Your task to perform on an android device: Go to display settings Image 0: 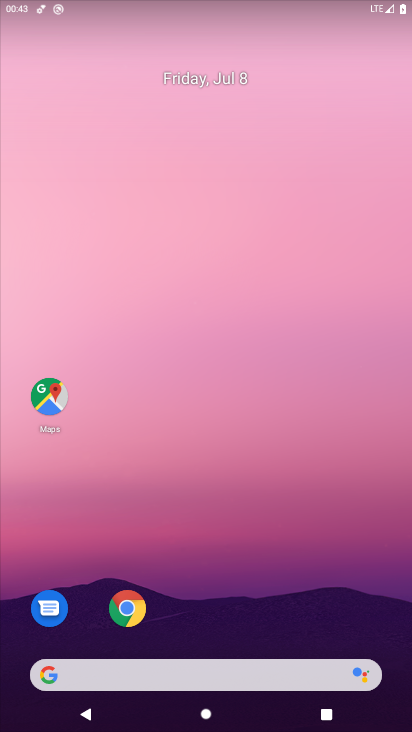
Step 0: drag from (249, 629) to (215, 62)
Your task to perform on an android device: Go to display settings Image 1: 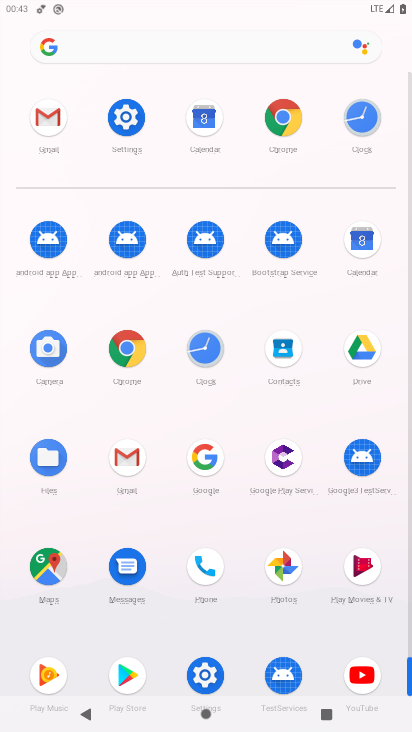
Step 1: click (199, 660)
Your task to perform on an android device: Go to display settings Image 2: 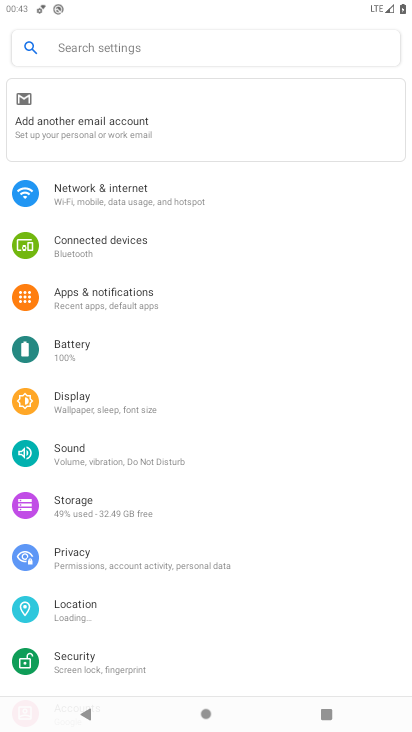
Step 2: click (127, 402)
Your task to perform on an android device: Go to display settings Image 3: 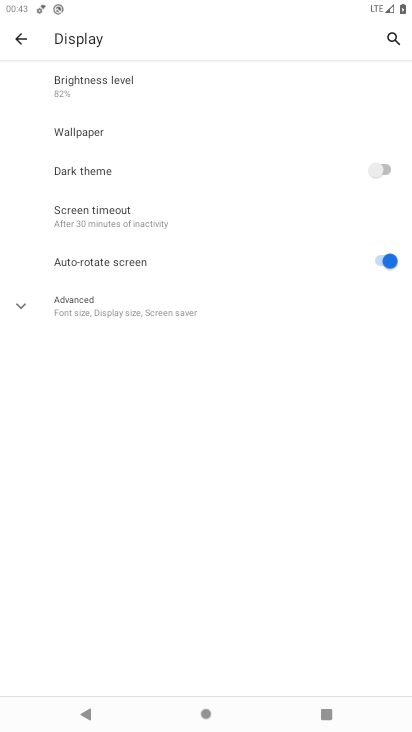
Step 3: task complete